Your task to perform on an android device: allow notifications from all sites in the chrome app Image 0: 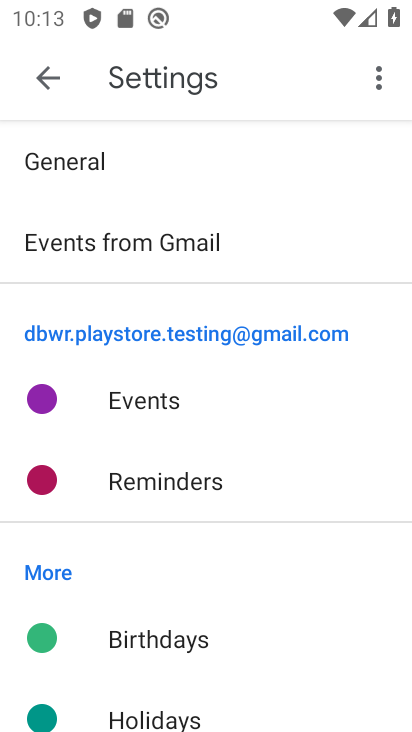
Step 0: press back button
Your task to perform on an android device: allow notifications from all sites in the chrome app Image 1: 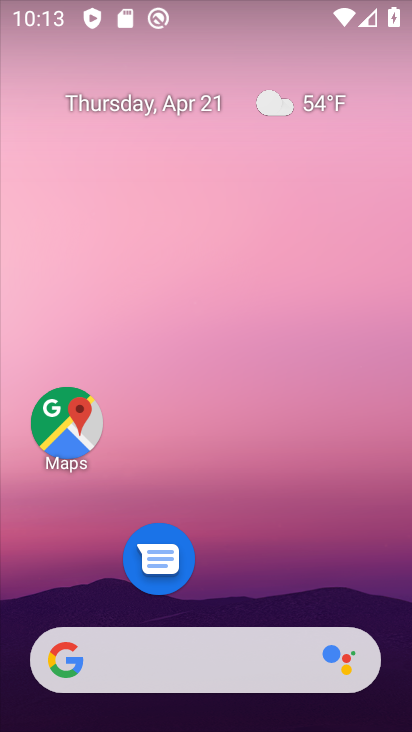
Step 1: drag from (241, 598) to (313, 60)
Your task to perform on an android device: allow notifications from all sites in the chrome app Image 2: 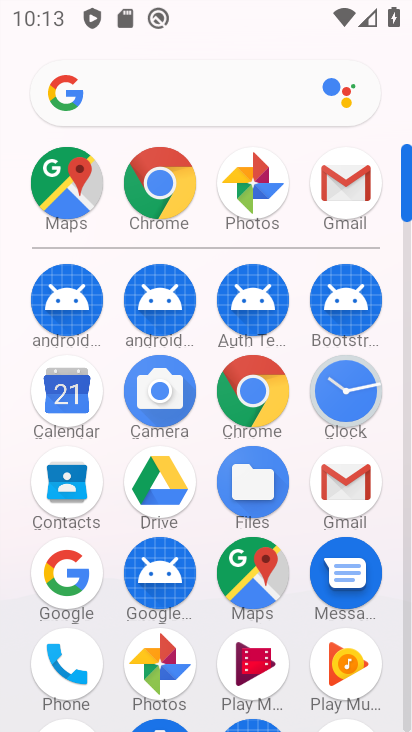
Step 2: click (162, 176)
Your task to perform on an android device: allow notifications from all sites in the chrome app Image 3: 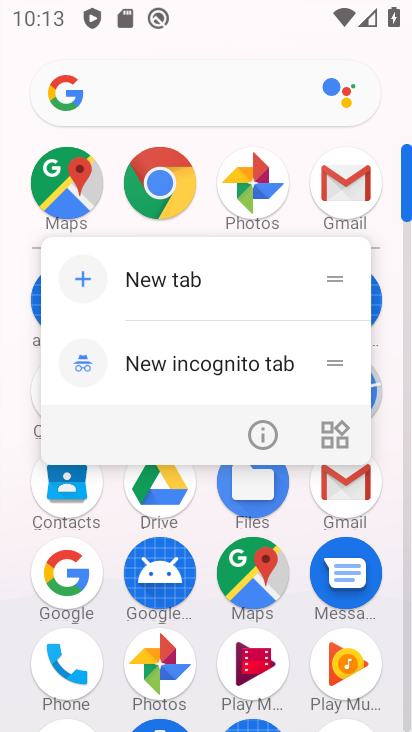
Step 3: click (152, 175)
Your task to perform on an android device: allow notifications from all sites in the chrome app Image 4: 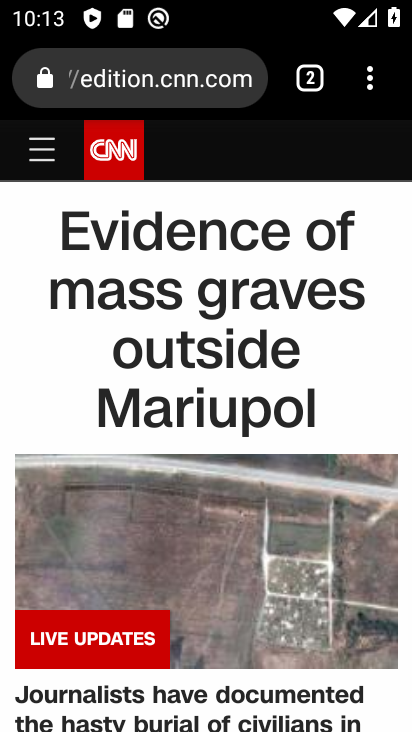
Step 4: click (364, 77)
Your task to perform on an android device: allow notifications from all sites in the chrome app Image 5: 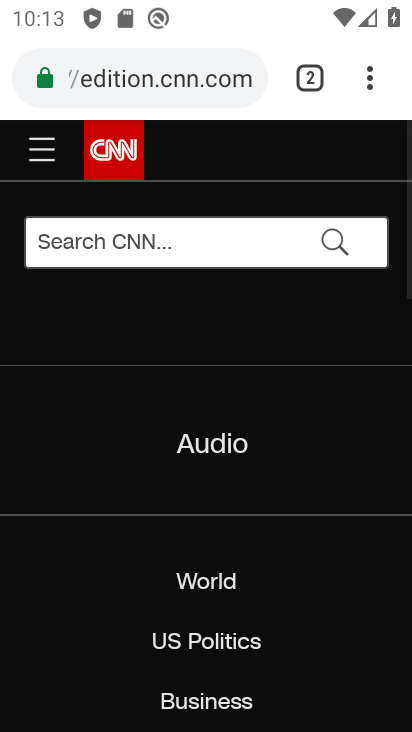
Step 5: drag from (368, 77) to (162, 612)
Your task to perform on an android device: allow notifications from all sites in the chrome app Image 6: 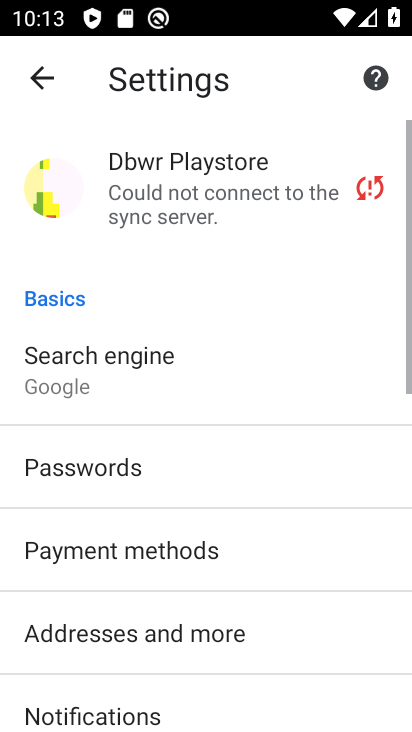
Step 6: drag from (197, 488) to (271, 169)
Your task to perform on an android device: allow notifications from all sites in the chrome app Image 7: 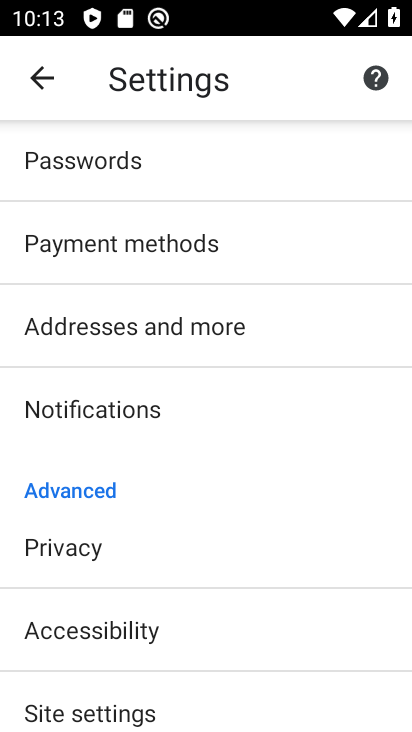
Step 7: click (163, 413)
Your task to perform on an android device: allow notifications from all sites in the chrome app Image 8: 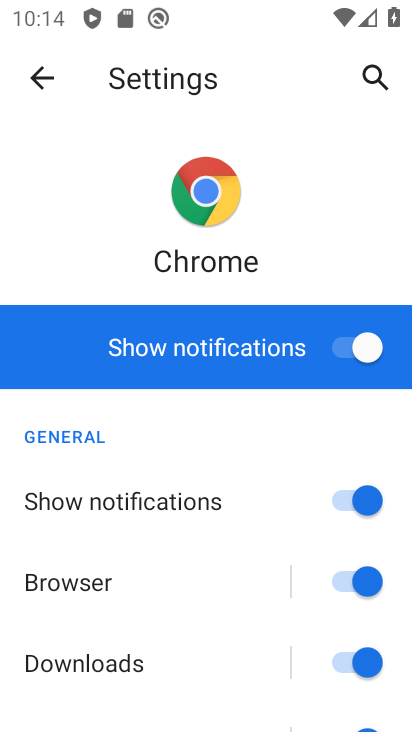
Step 8: task complete